Your task to perform on an android device: Open the stopwatch Image 0: 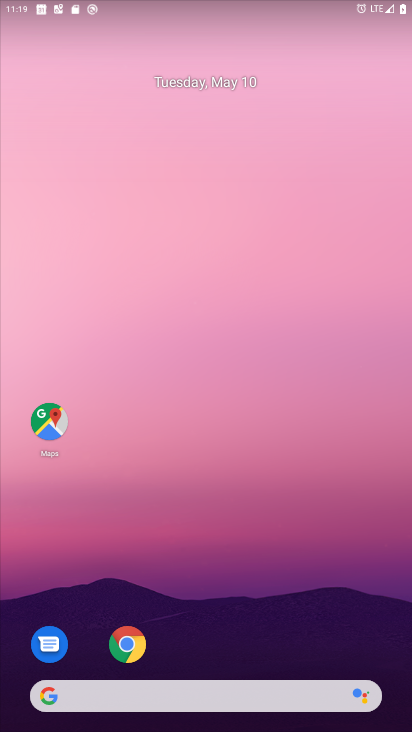
Step 0: drag from (285, 588) to (298, 122)
Your task to perform on an android device: Open the stopwatch Image 1: 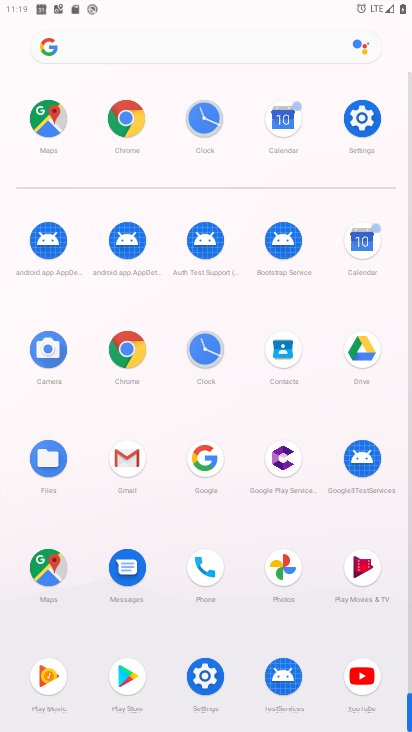
Step 1: click (207, 366)
Your task to perform on an android device: Open the stopwatch Image 2: 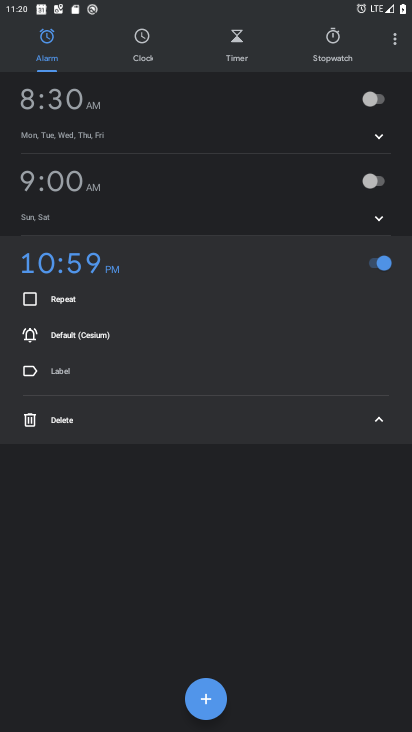
Step 2: click (327, 57)
Your task to perform on an android device: Open the stopwatch Image 3: 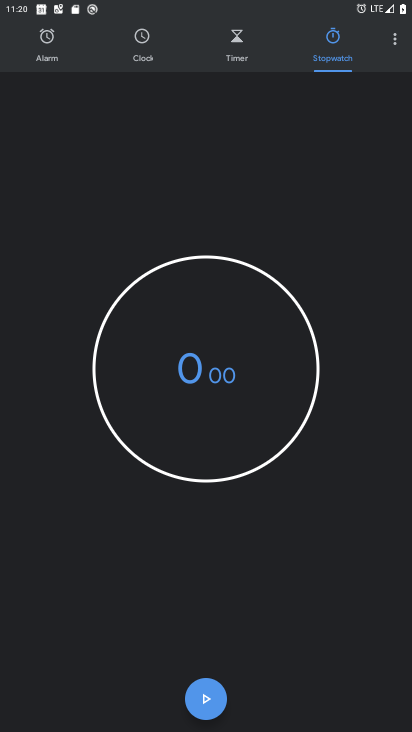
Step 3: task complete